Your task to perform on an android device: check android version Image 0: 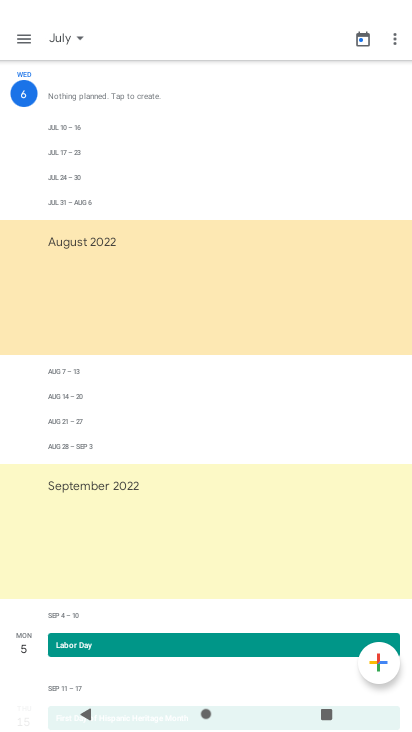
Step 0: press home button
Your task to perform on an android device: check android version Image 1: 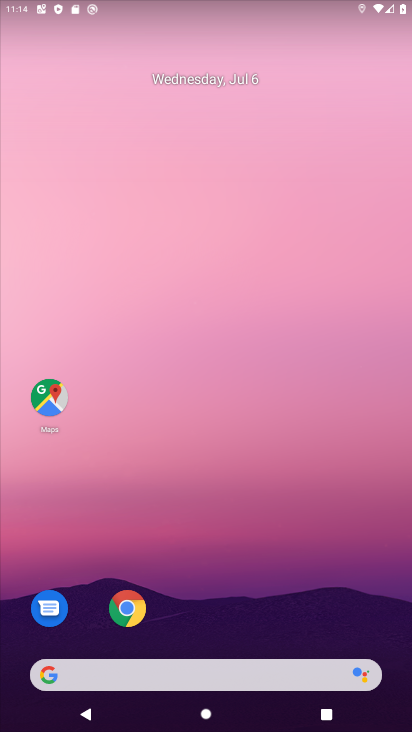
Step 1: drag from (352, 605) to (215, 76)
Your task to perform on an android device: check android version Image 2: 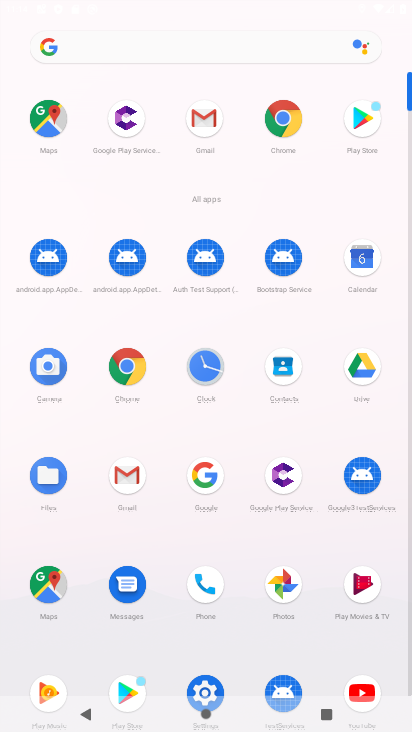
Step 2: click (211, 689)
Your task to perform on an android device: check android version Image 3: 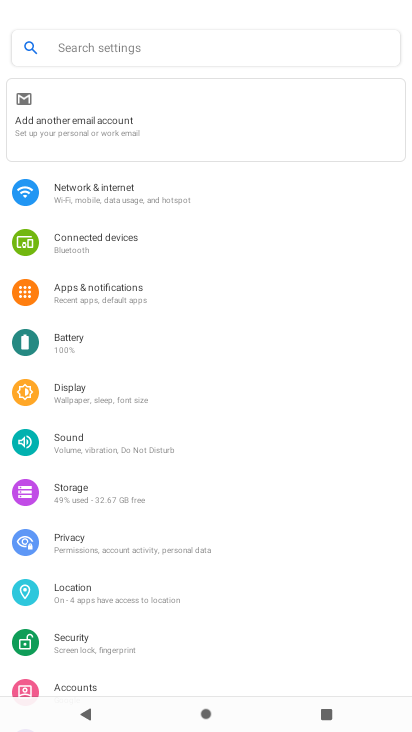
Step 3: drag from (151, 621) to (156, 467)
Your task to perform on an android device: check android version Image 4: 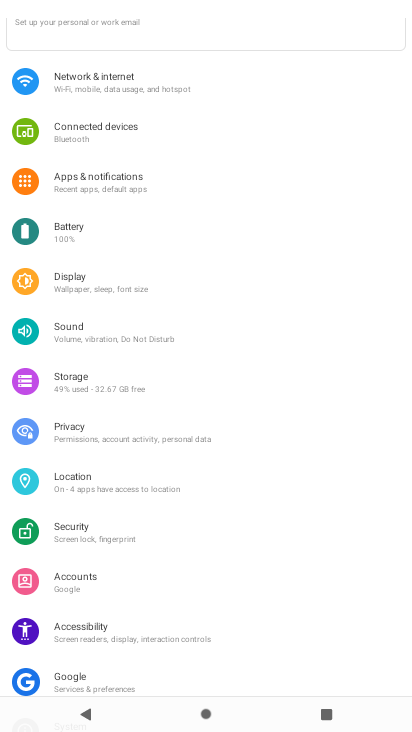
Step 4: click (158, 411)
Your task to perform on an android device: check android version Image 5: 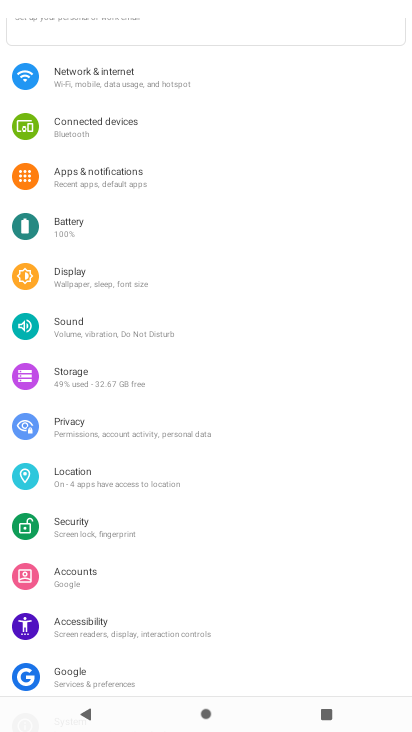
Step 5: click (160, 390)
Your task to perform on an android device: check android version Image 6: 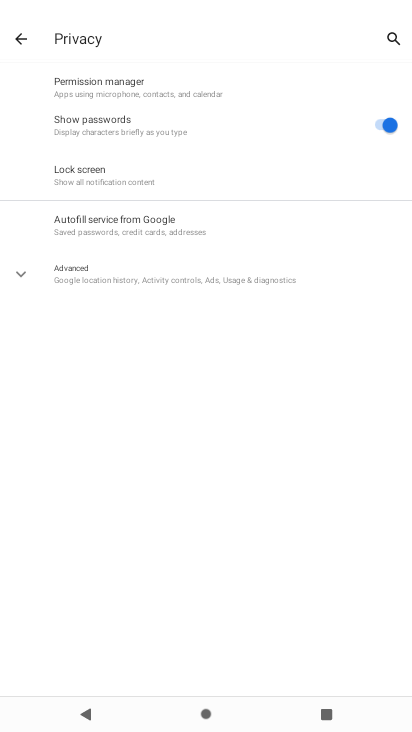
Step 6: drag from (144, 580) to (144, 531)
Your task to perform on an android device: check android version Image 7: 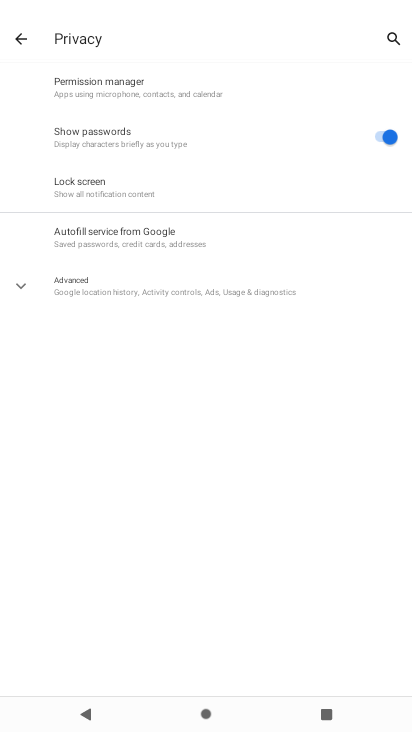
Step 7: click (29, 41)
Your task to perform on an android device: check android version Image 8: 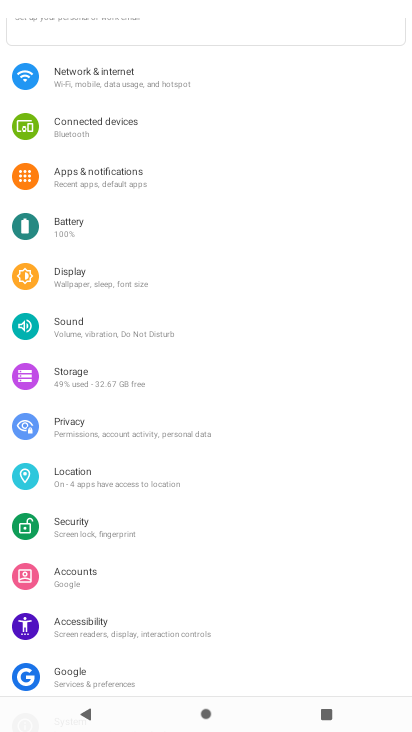
Step 8: drag from (158, 161) to (173, 441)
Your task to perform on an android device: check android version Image 9: 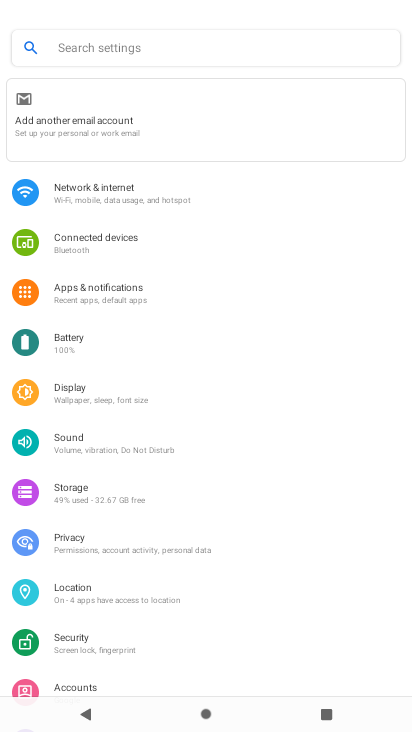
Step 9: drag from (178, 628) to (158, 418)
Your task to perform on an android device: check android version Image 10: 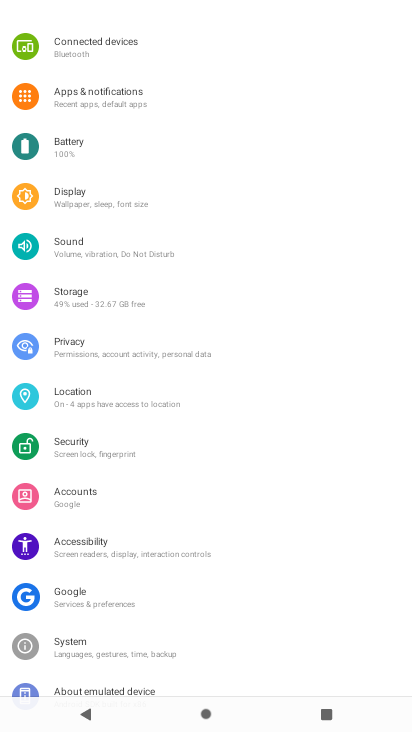
Step 10: drag from (177, 620) to (178, 363)
Your task to perform on an android device: check android version Image 11: 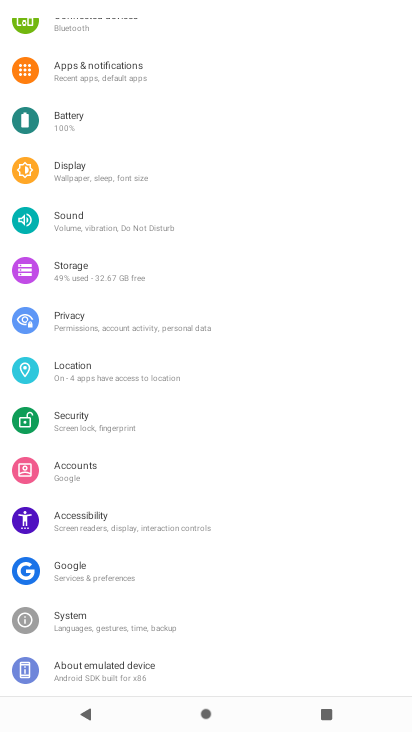
Step 11: click (96, 671)
Your task to perform on an android device: check android version Image 12: 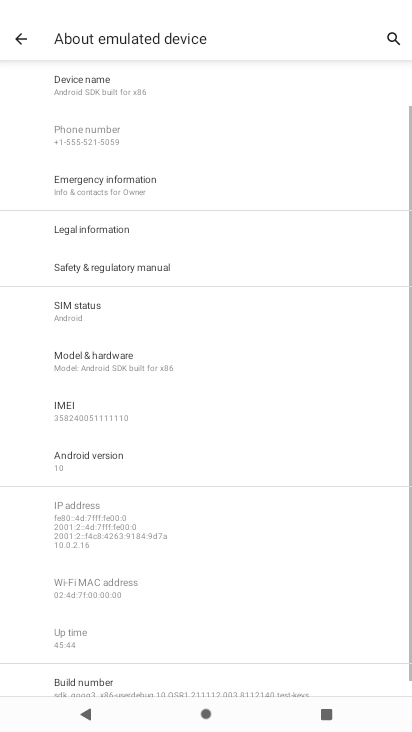
Step 12: drag from (225, 602) to (216, 205)
Your task to perform on an android device: check android version Image 13: 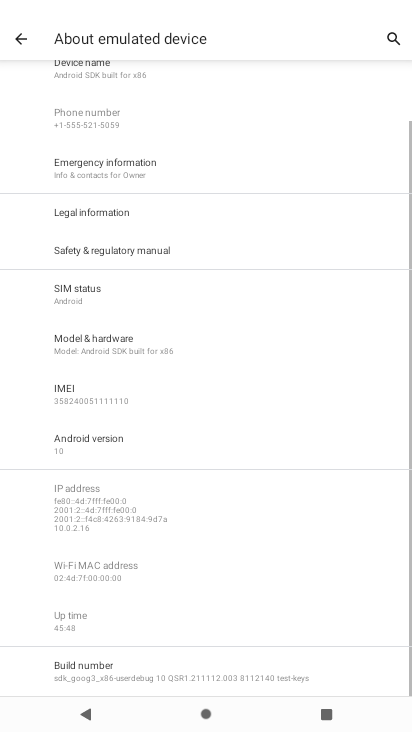
Step 13: click (94, 663)
Your task to perform on an android device: check android version Image 14: 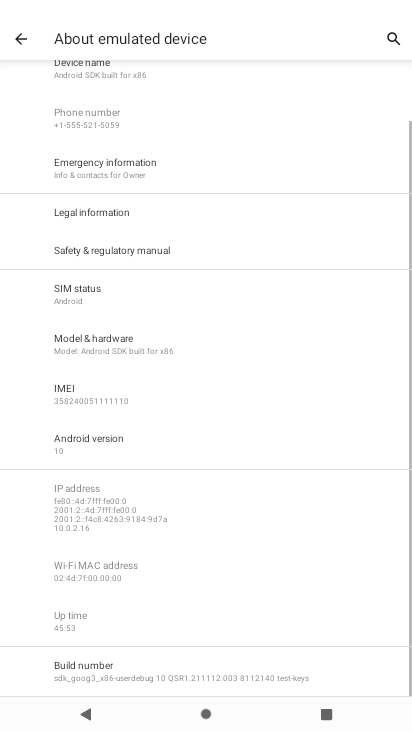
Step 14: drag from (195, 181) to (208, 431)
Your task to perform on an android device: check android version Image 15: 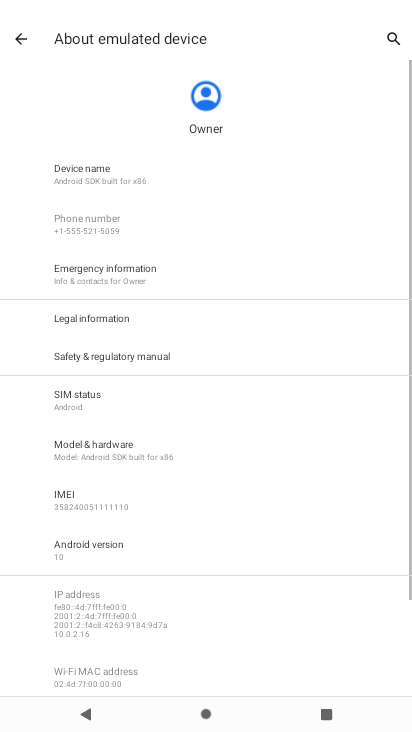
Step 15: click (84, 539)
Your task to perform on an android device: check android version Image 16: 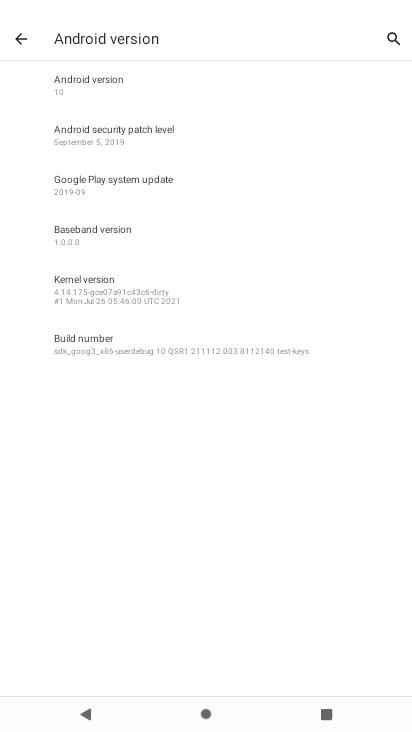
Step 16: click (67, 81)
Your task to perform on an android device: check android version Image 17: 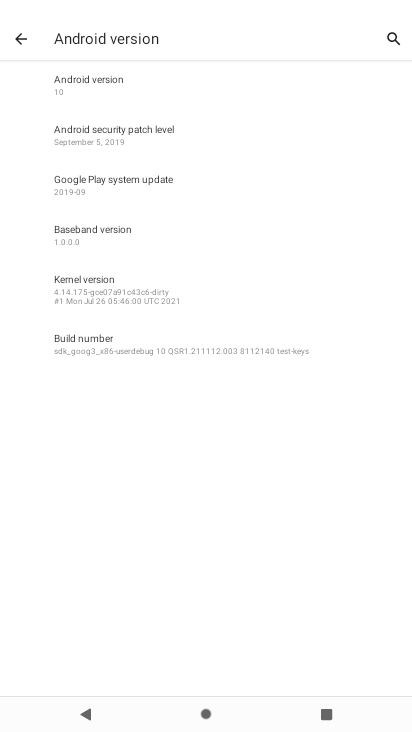
Step 17: task complete